Your task to perform on an android device: all mails in gmail Image 0: 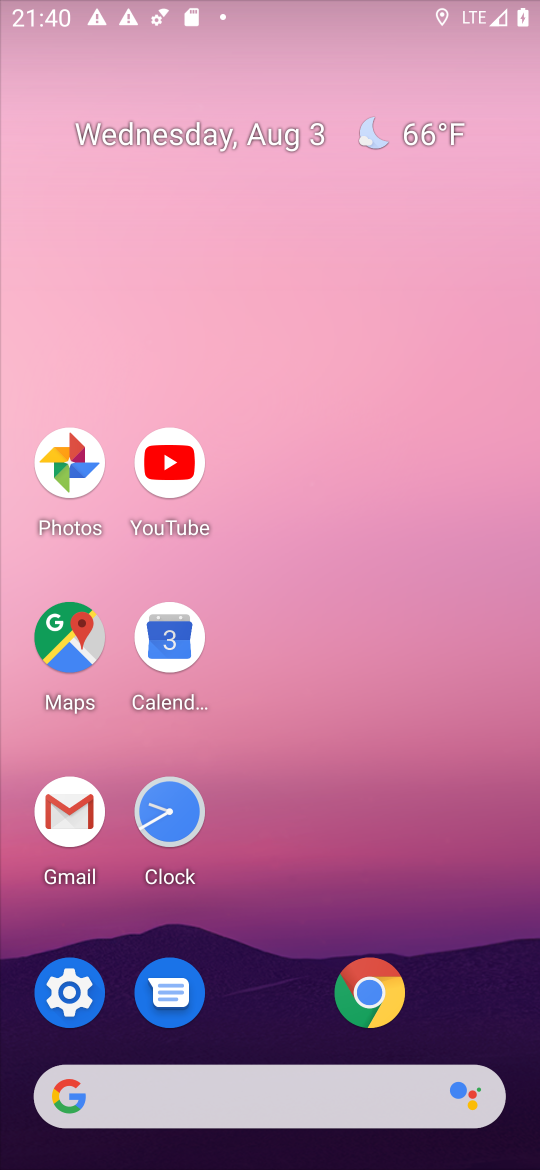
Step 0: press home button
Your task to perform on an android device: all mails in gmail Image 1: 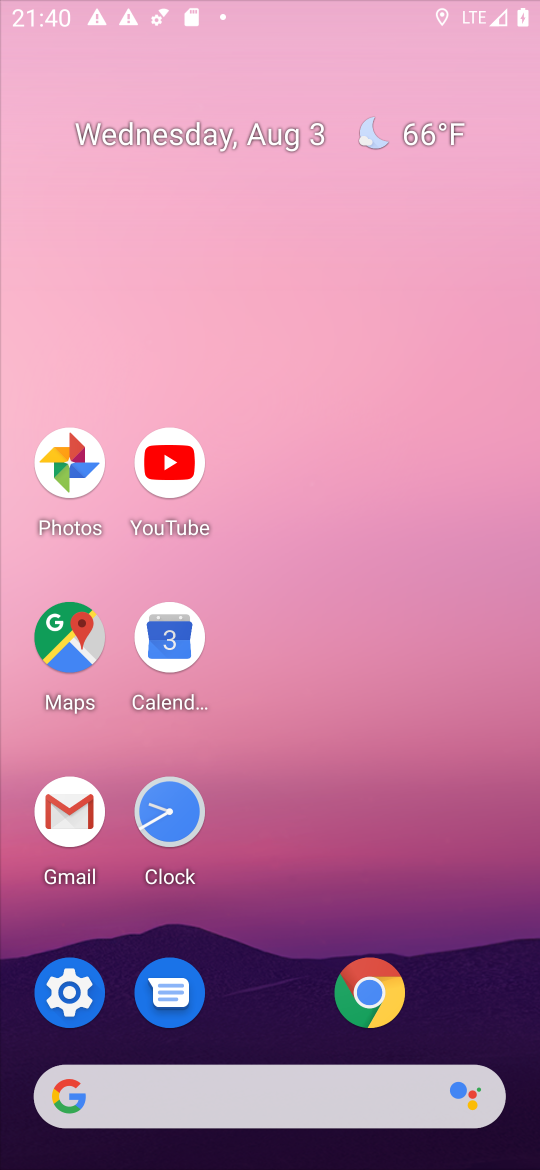
Step 1: press home button
Your task to perform on an android device: all mails in gmail Image 2: 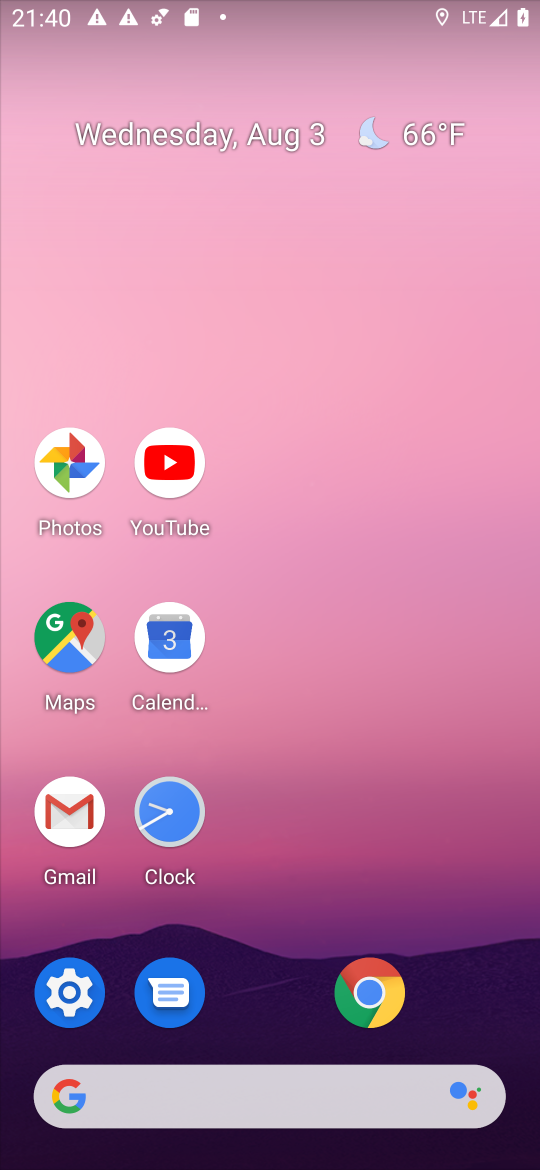
Step 2: click (64, 816)
Your task to perform on an android device: all mails in gmail Image 3: 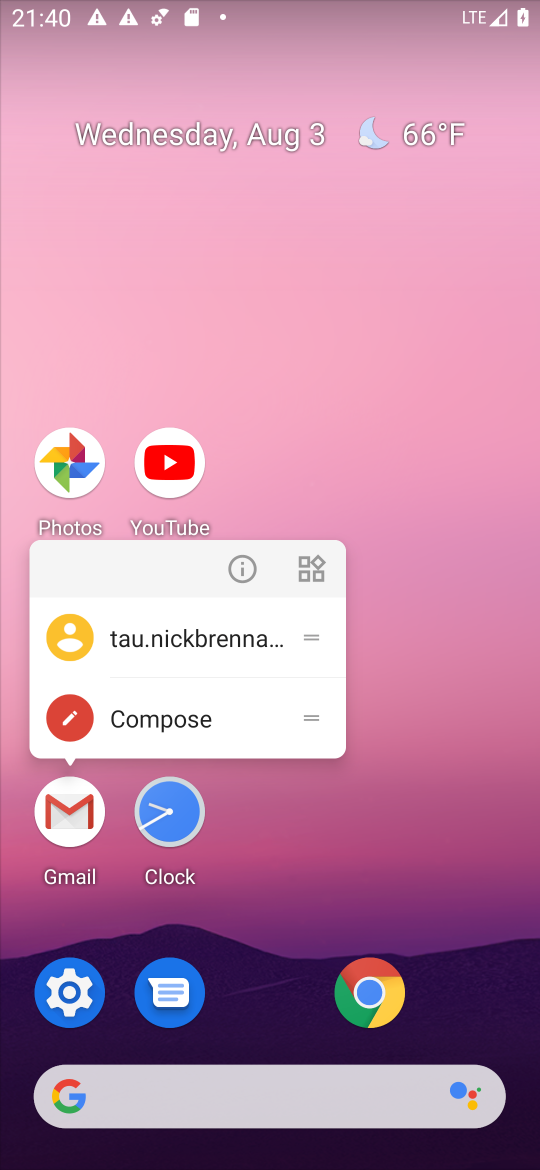
Step 3: click (90, 821)
Your task to perform on an android device: all mails in gmail Image 4: 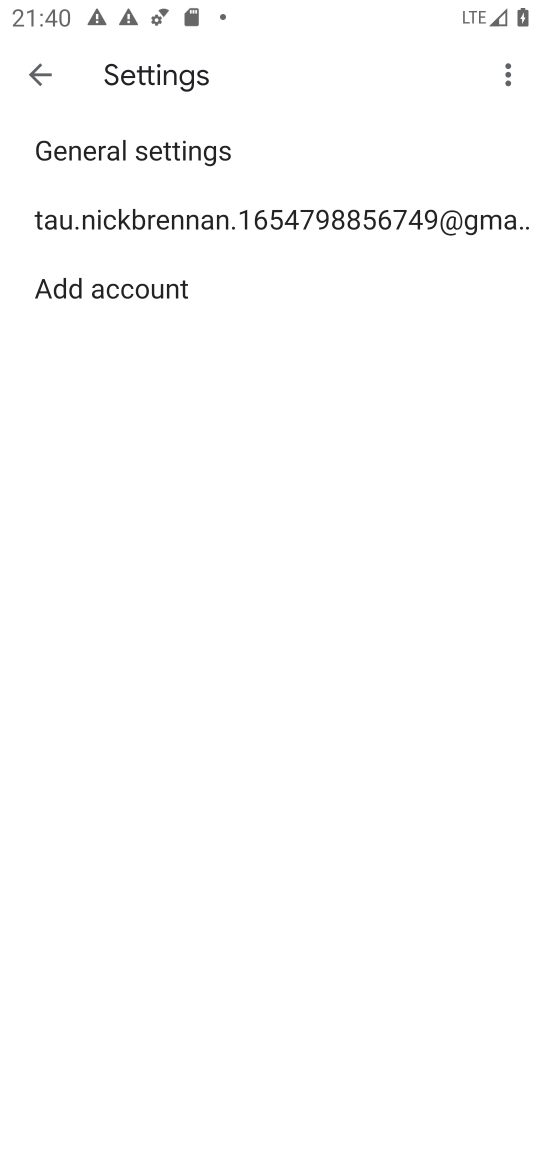
Step 4: click (41, 70)
Your task to perform on an android device: all mails in gmail Image 5: 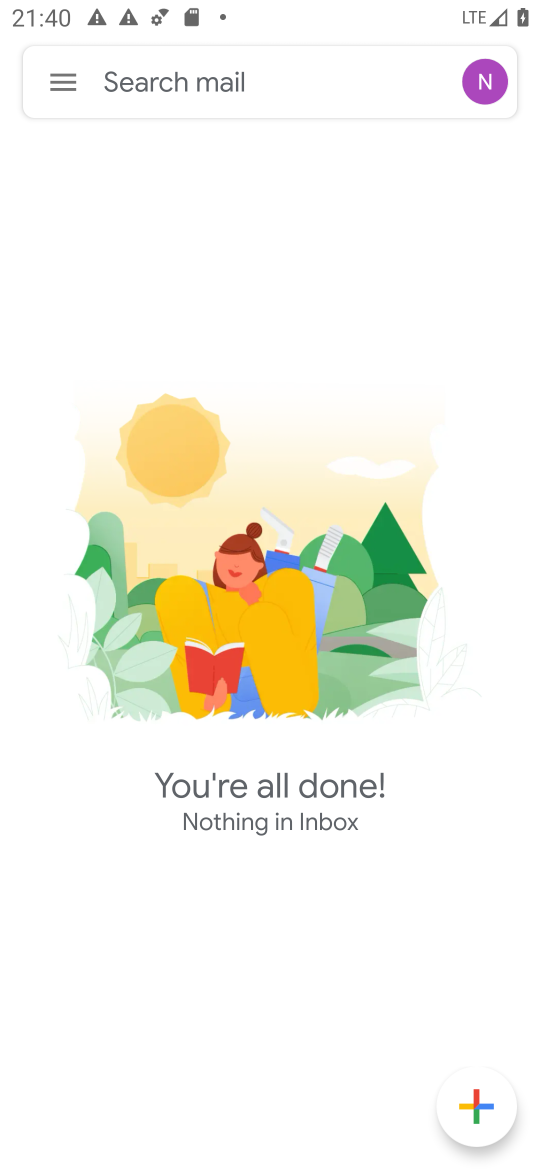
Step 5: click (49, 66)
Your task to perform on an android device: all mails in gmail Image 6: 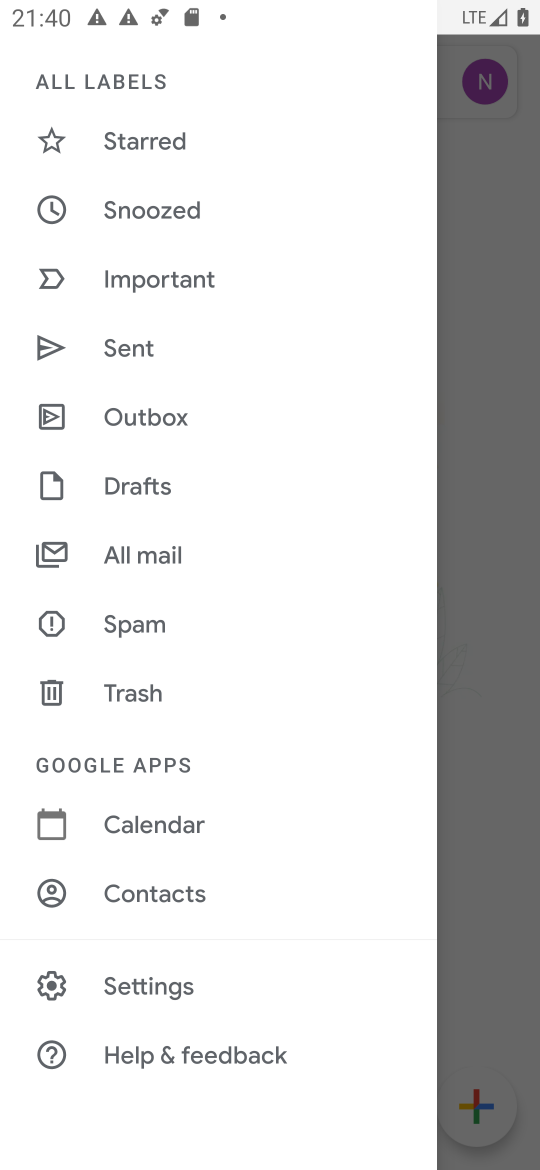
Step 6: click (139, 551)
Your task to perform on an android device: all mails in gmail Image 7: 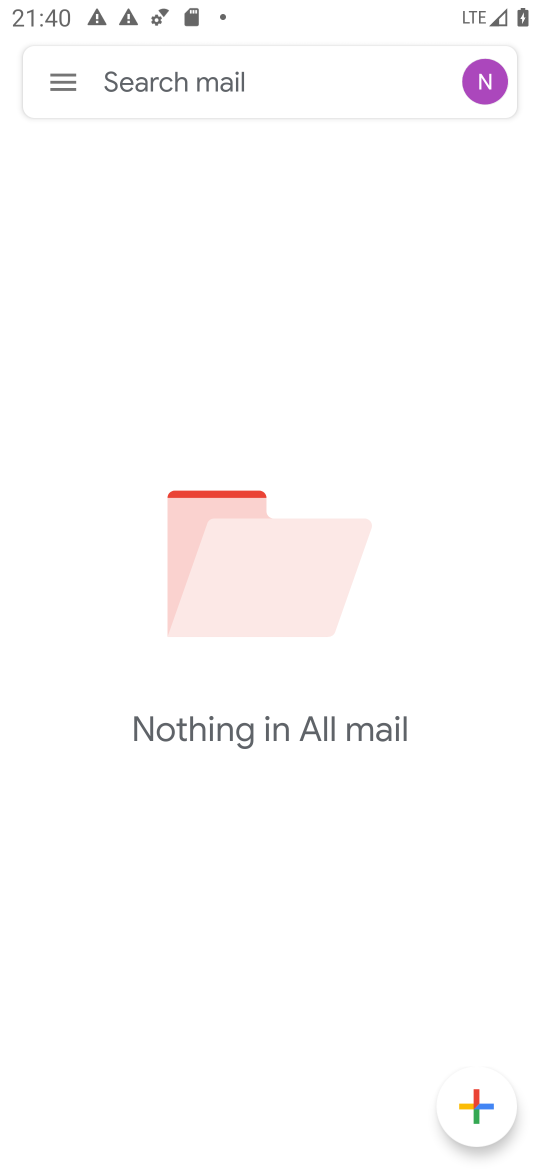
Step 7: task complete